Your task to perform on an android device: What's the weather going to be tomorrow? Image 0: 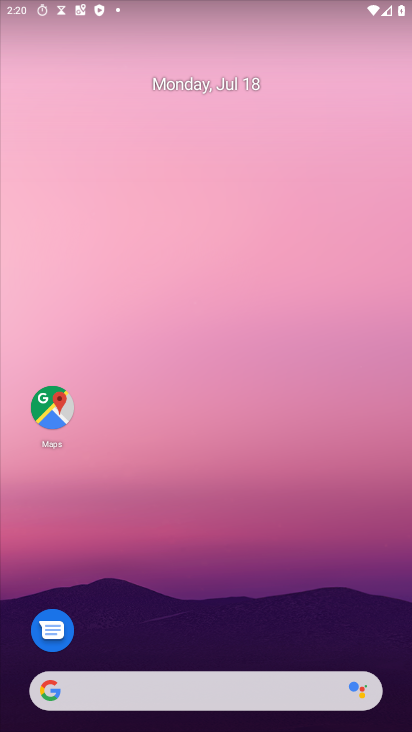
Step 0: drag from (224, 703) to (171, 57)
Your task to perform on an android device: What's the weather going to be tomorrow? Image 1: 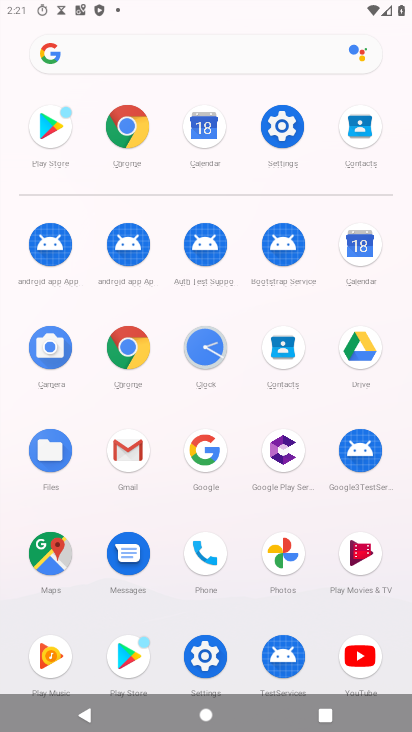
Step 1: click (143, 350)
Your task to perform on an android device: What's the weather going to be tomorrow? Image 2: 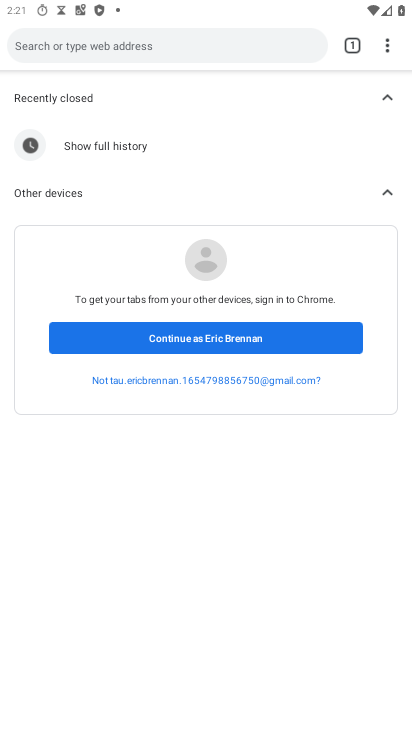
Step 2: click (133, 29)
Your task to perform on an android device: What's the weather going to be tomorrow? Image 3: 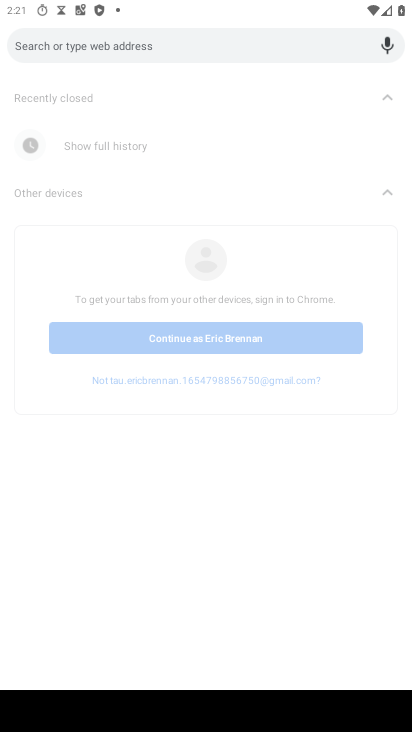
Step 3: type "weather going to be tomorrow"
Your task to perform on an android device: What's the weather going to be tomorrow? Image 4: 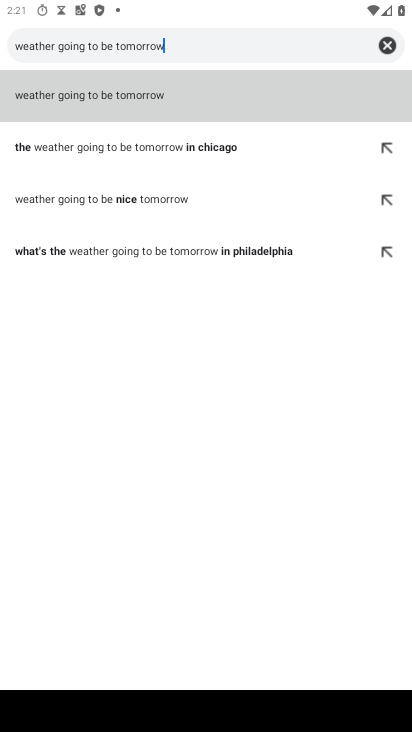
Step 4: click (161, 92)
Your task to perform on an android device: What's the weather going to be tomorrow? Image 5: 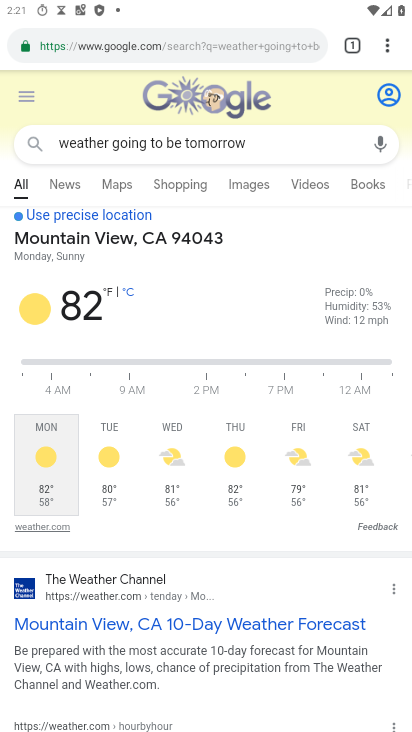
Step 5: task complete